Your task to perform on an android device: Clear the shopping cart on newegg.com. Search for "alienware aurora" on newegg.com, select the first entry, add it to the cart, then select checkout. Image 0: 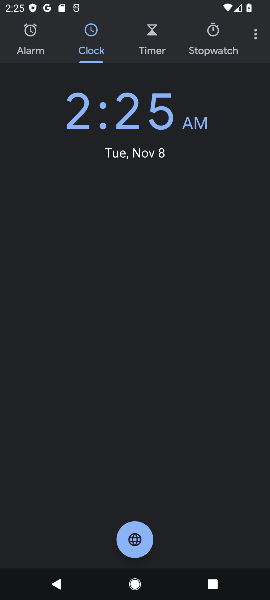
Step 0: press home button
Your task to perform on an android device: Clear the shopping cart on newegg.com. Search for "alienware aurora" on newegg.com, select the first entry, add it to the cart, then select checkout. Image 1: 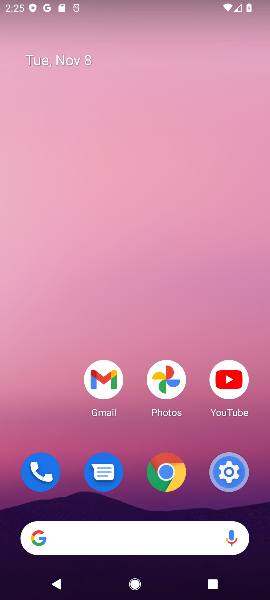
Step 1: click (152, 530)
Your task to perform on an android device: Clear the shopping cart on newegg.com. Search for "alienware aurora" on newegg.com, select the first entry, add it to the cart, then select checkout. Image 2: 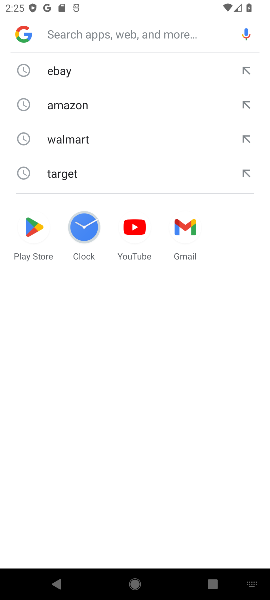
Step 2: type "newegg"
Your task to perform on an android device: Clear the shopping cart on newegg.com. Search for "alienware aurora" on newegg.com, select the first entry, add it to the cart, then select checkout. Image 3: 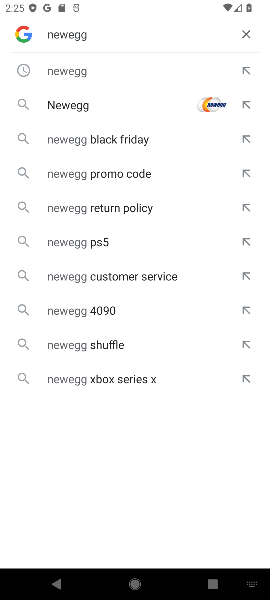
Step 3: click (76, 65)
Your task to perform on an android device: Clear the shopping cart on newegg.com. Search for "alienware aurora" on newegg.com, select the first entry, add it to the cart, then select checkout. Image 4: 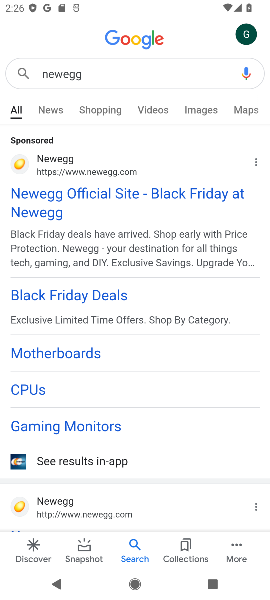
Step 4: click (49, 215)
Your task to perform on an android device: Clear the shopping cart on newegg.com. Search for "alienware aurora" on newegg.com, select the first entry, add it to the cart, then select checkout. Image 5: 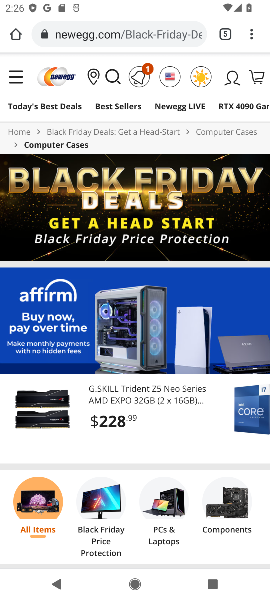
Step 5: task complete